Your task to perform on an android device: check storage Image 0: 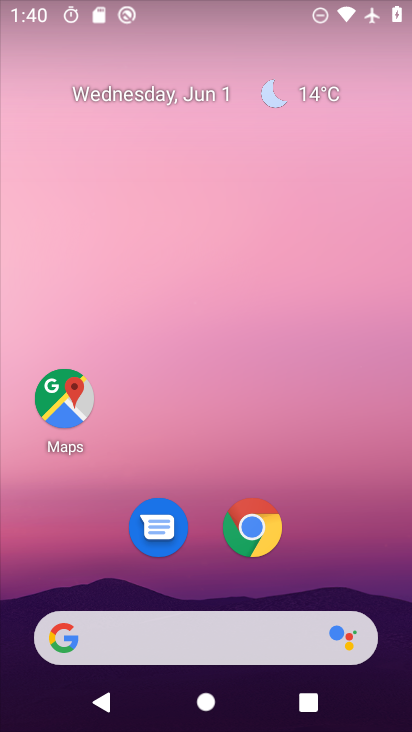
Step 0: drag from (226, 590) to (249, 146)
Your task to perform on an android device: check storage Image 1: 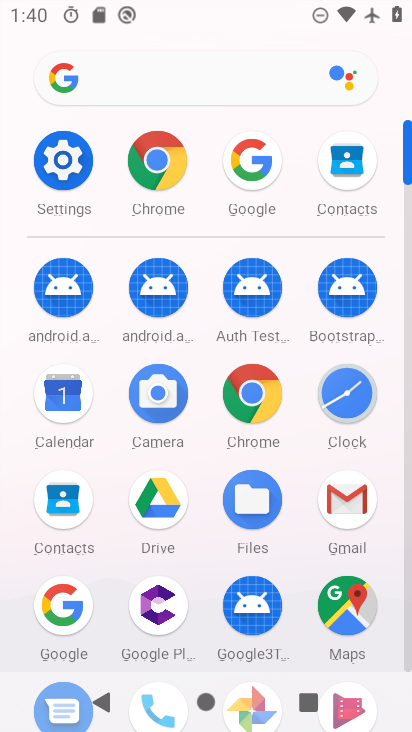
Step 1: click (85, 175)
Your task to perform on an android device: check storage Image 2: 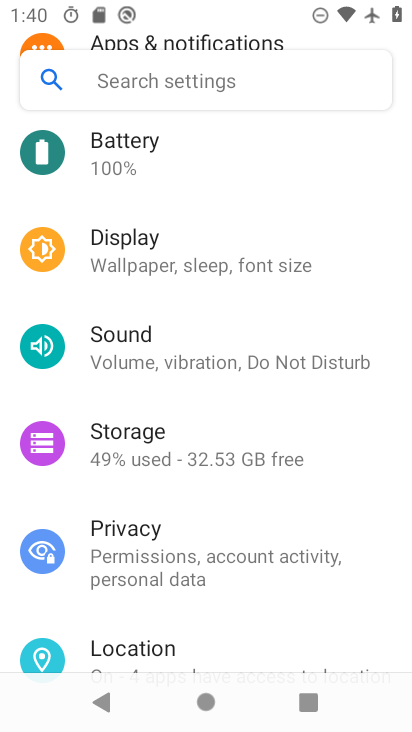
Step 2: drag from (197, 277) to (165, 602)
Your task to perform on an android device: check storage Image 3: 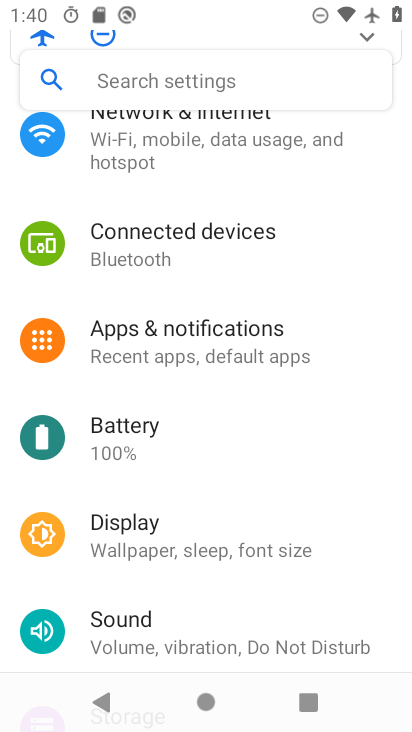
Step 3: drag from (204, 314) to (282, 129)
Your task to perform on an android device: check storage Image 4: 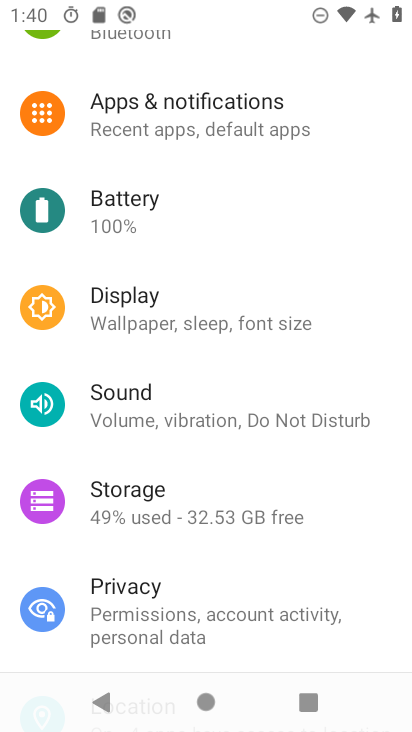
Step 4: click (186, 514)
Your task to perform on an android device: check storage Image 5: 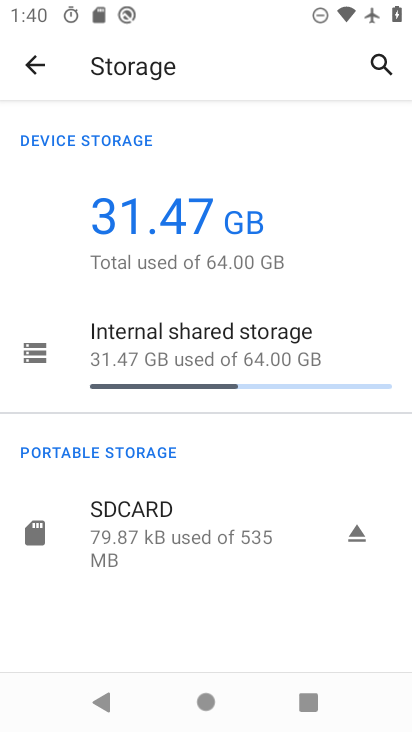
Step 5: click (270, 359)
Your task to perform on an android device: check storage Image 6: 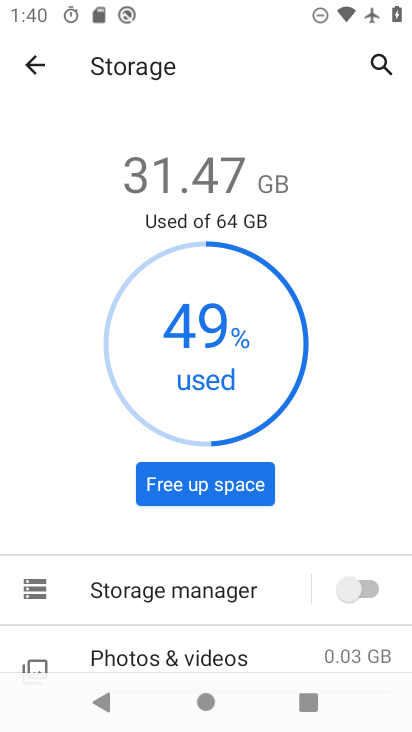
Step 6: task complete